Your task to perform on an android device: Play the last video I watched on Youtube Image 0: 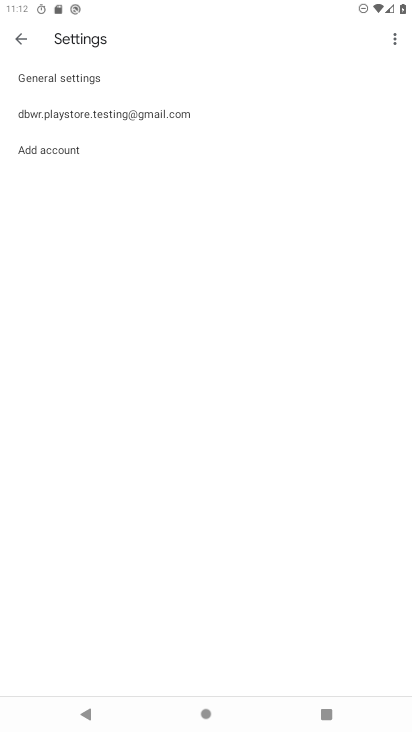
Step 0: press home button
Your task to perform on an android device: Play the last video I watched on Youtube Image 1: 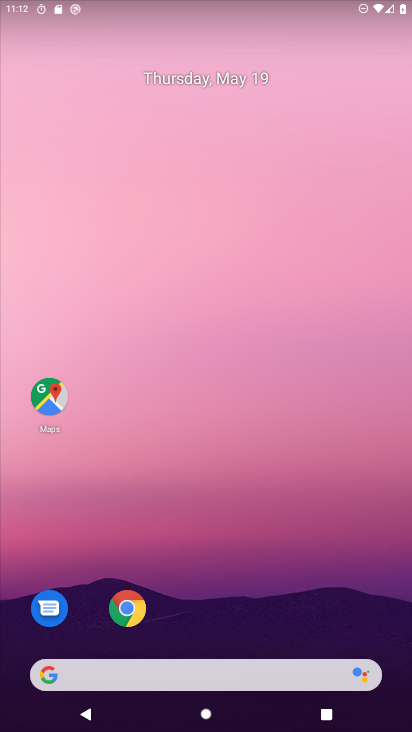
Step 1: drag from (401, 665) to (385, 184)
Your task to perform on an android device: Play the last video I watched on Youtube Image 2: 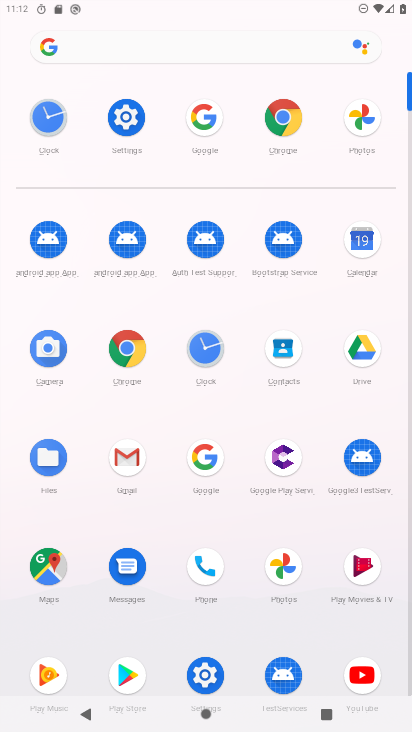
Step 2: click (368, 674)
Your task to perform on an android device: Play the last video I watched on Youtube Image 3: 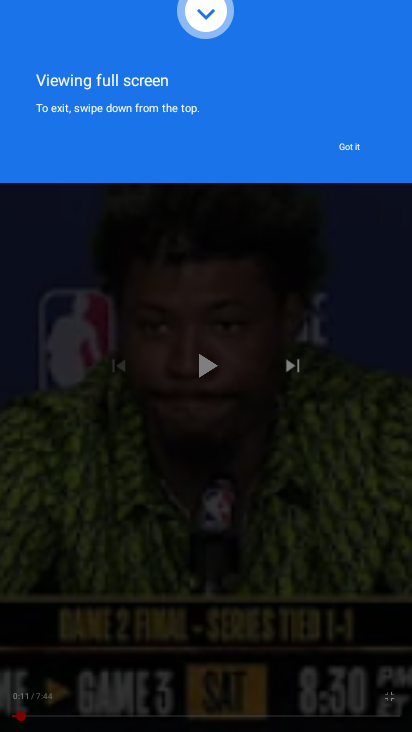
Step 3: click (312, 158)
Your task to perform on an android device: Play the last video I watched on Youtube Image 4: 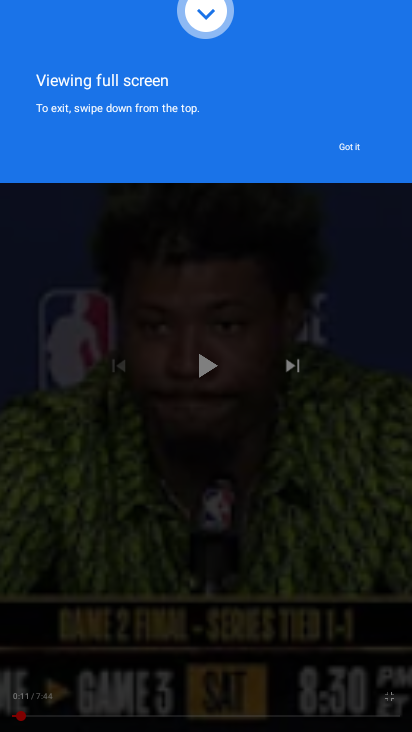
Step 4: click (351, 150)
Your task to perform on an android device: Play the last video I watched on Youtube Image 5: 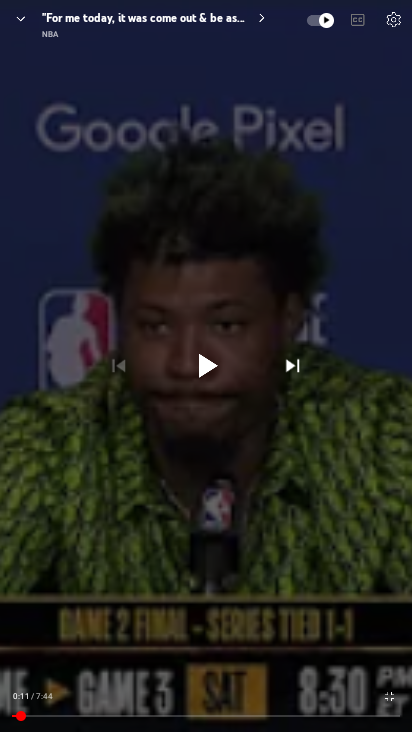
Step 5: click (216, 362)
Your task to perform on an android device: Play the last video I watched on Youtube Image 6: 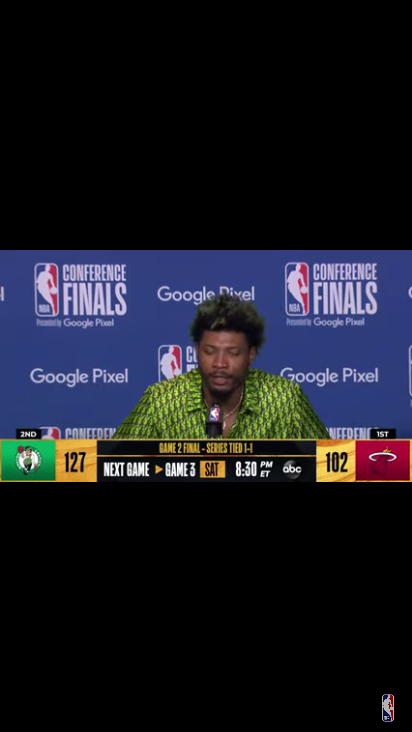
Step 6: task complete